Your task to perform on an android device: Search for vegetarian restaurants on Maps Image 0: 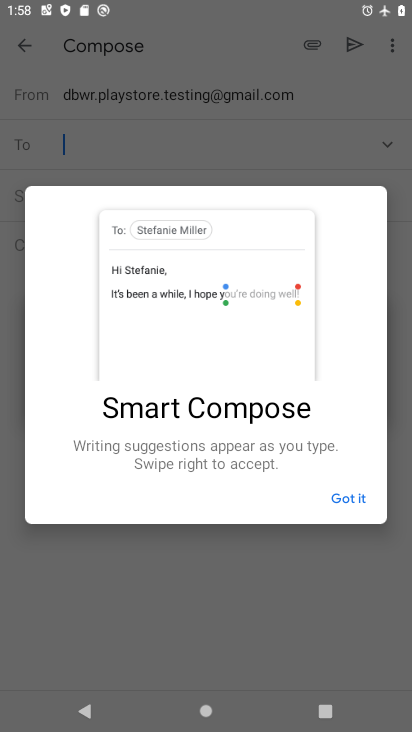
Step 0: click (350, 505)
Your task to perform on an android device: Search for vegetarian restaurants on Maps Image 1: 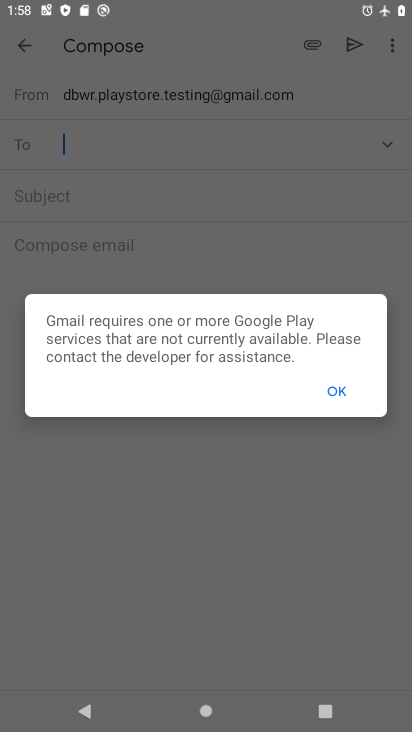
Step 1: click (335, 379)
Your task to perform on an android device: Search for vegetarian restaurants on Maps Image 2: 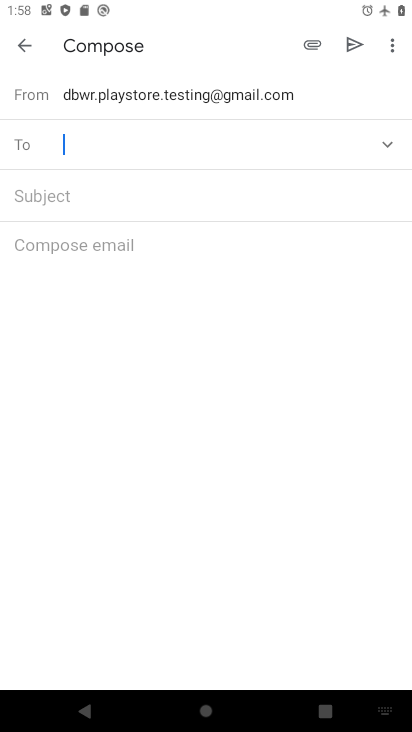
Step 2: press home button
Your task to perform on an android device: Search for vegetarian restaurants on Maps Image 3: 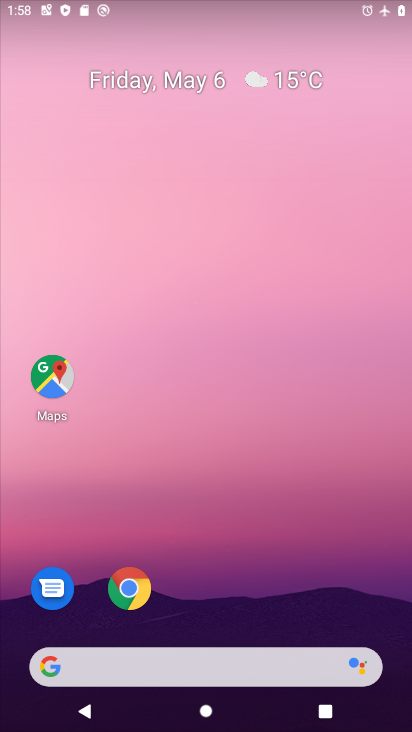
Step 3: drag from (228, 600) to (300, 205)
Your task to perform on an android device: Search for vegetarian restaurants on Maps Image 4: 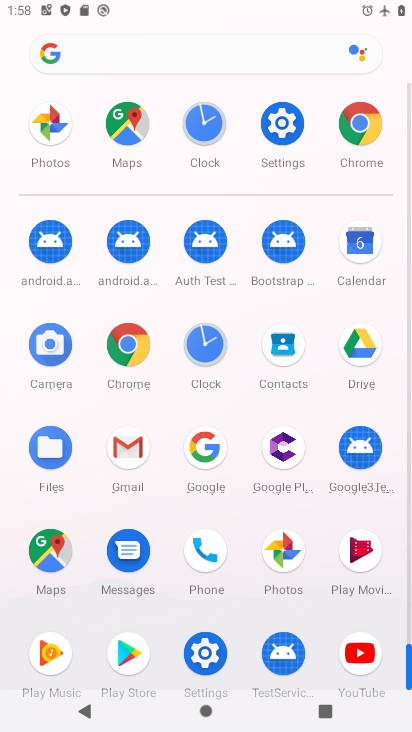
Step 4: click (47, 544)
Your task to perform on an android device: Search for vegetarian restaurants on Maps Image 5: 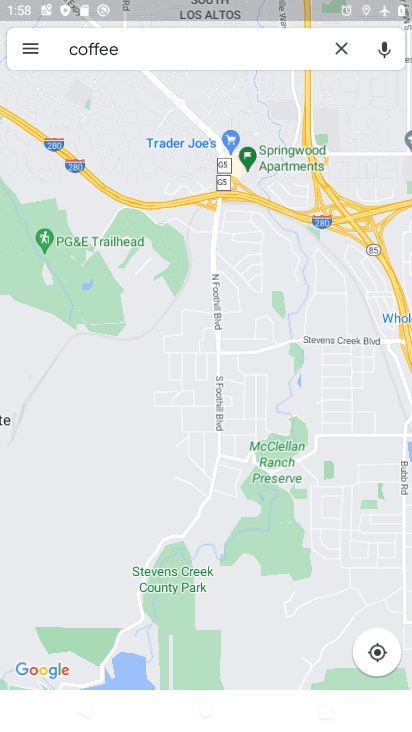
Step 5: click (337, 53)
Your task to perform on an android device: Search for vegetarian restaurants on Maps Image 6: 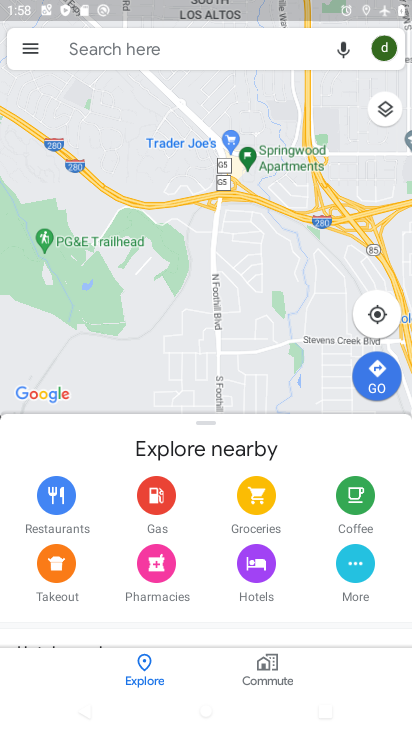
Step 6: click (175, 57)
Your task to perform on an android device: Search for vegetarian restaurants on Maps Image 7: 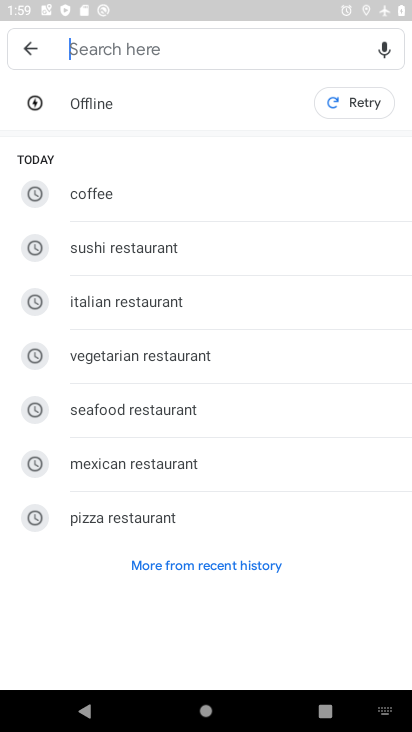
Step 7: click (323, 340)
Your task to perform on an android device: Search for vegetarian restaurants on Maps Image 8: 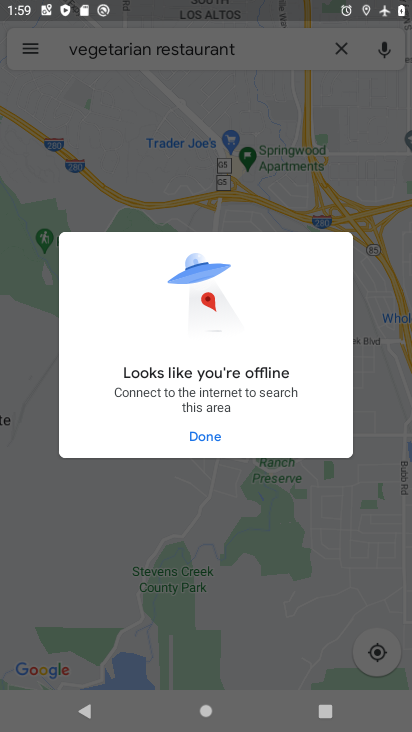
Step 8: click (199, 432)
Your task to perform on an android device: Search for vegetarian restaurants on Maps Image 9: 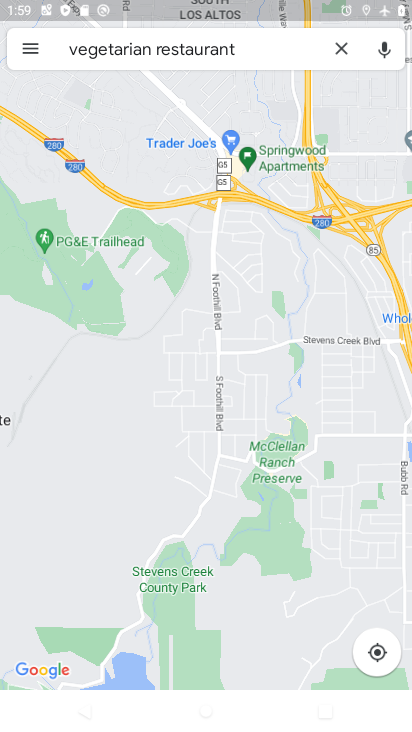
Step 9: task complete